Your task to perform on an android device: turn off data saver in the chrome app Image 0: 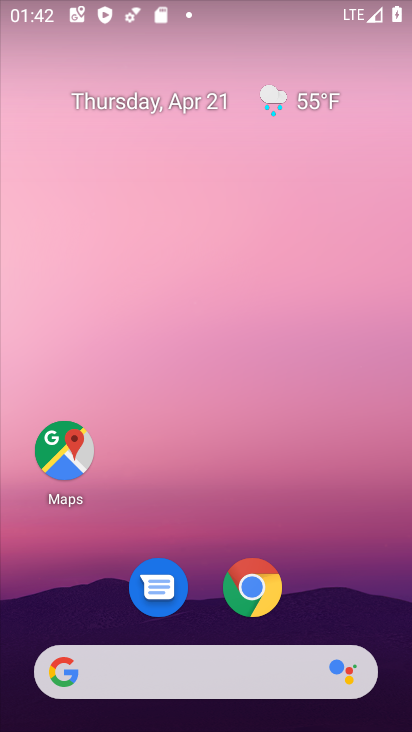
Step 0: click (244, 584)
Your task to perform on an android device: turn off data saver in the chrome app Image 1: 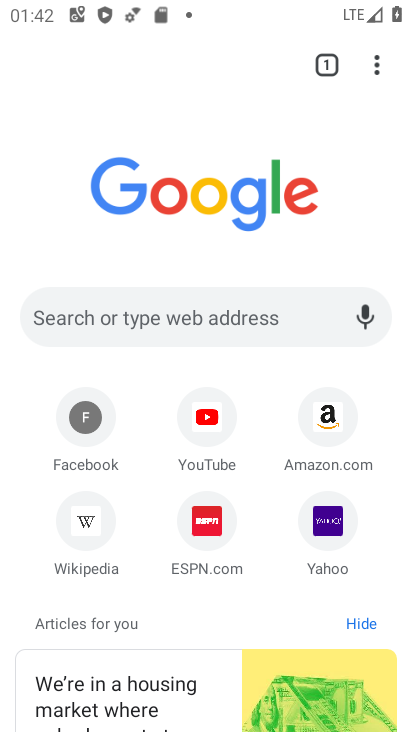
Step 1: click (374, 74)
Your task to perform on an android device: turn off data saver in the chrome app Image 2: 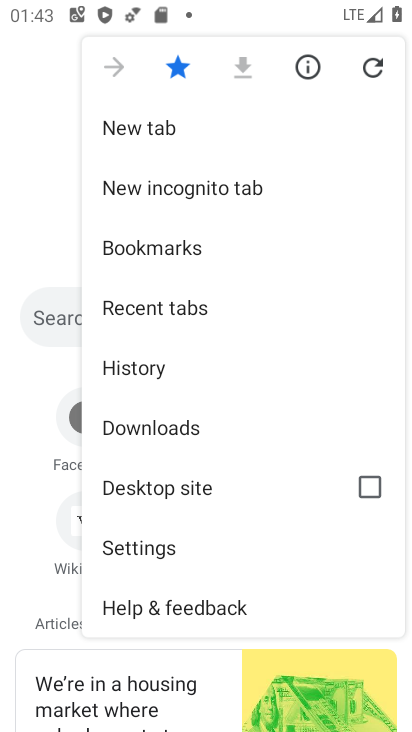
Step 2: click (128, 543)
Your task to perform on an android device: turn off data saver in the chrome app Image 3: 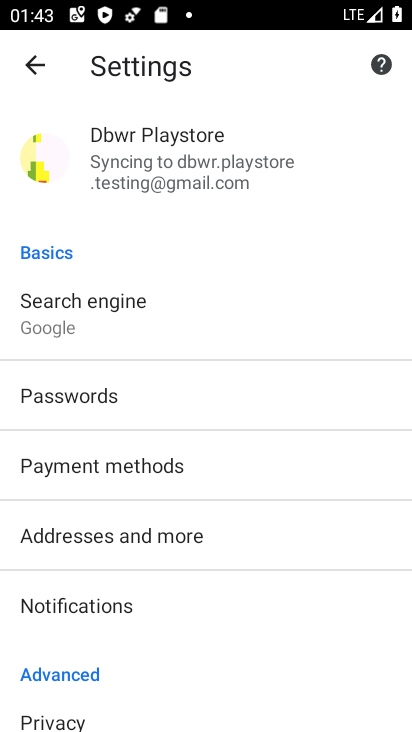
Step 3: drag from (208, 583) to (244, 408)
Your task to perform on an android device: turn off data saver in the chrome app Image 4: 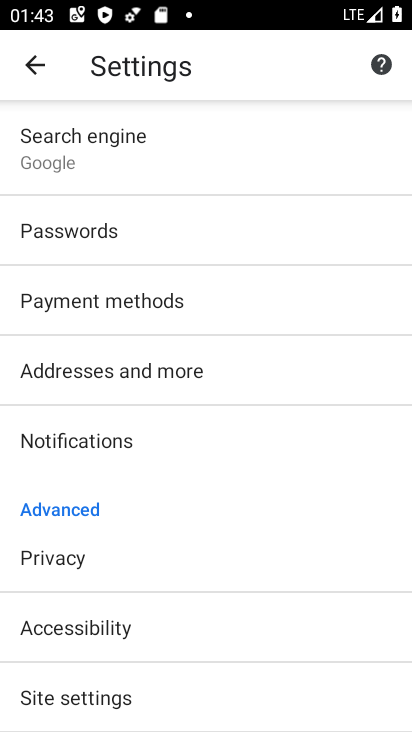
Step 4: drag from (231, 470) to (247, 269)
Your task to perform on an android device: turn off data saver in the chrome app Image 5: 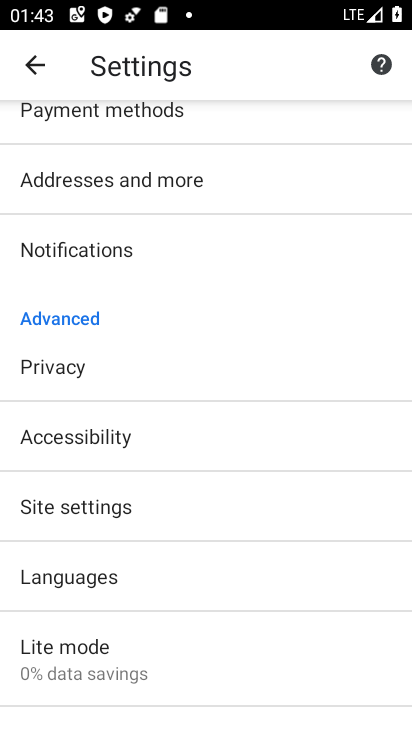
Step 5: click (69, 643)
Your task to perform on an android device: turn off data saver in the chrome app Image 6: 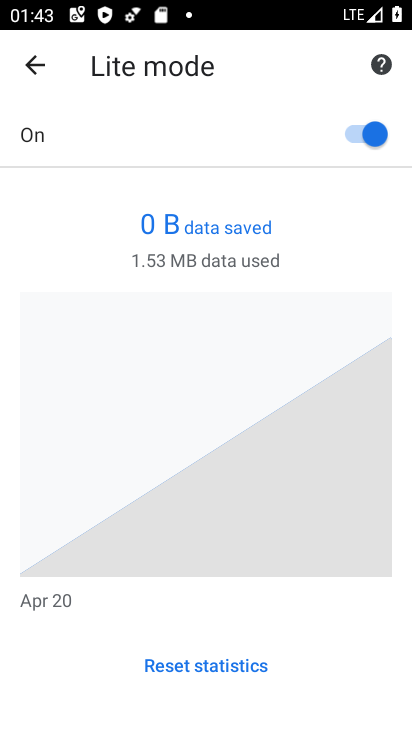
Step 6: click (346, 134)
Your task to perform on an android device: turn off data saver in the chrome app Image 7: 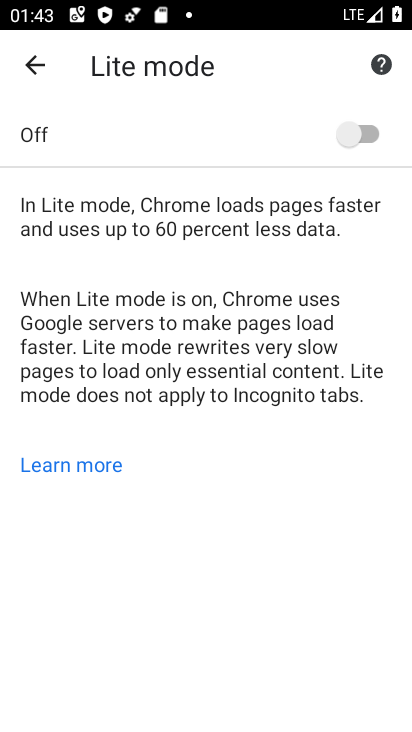
Step 7: task complete